Your task to perform on an android device: check out phone information Image 0: 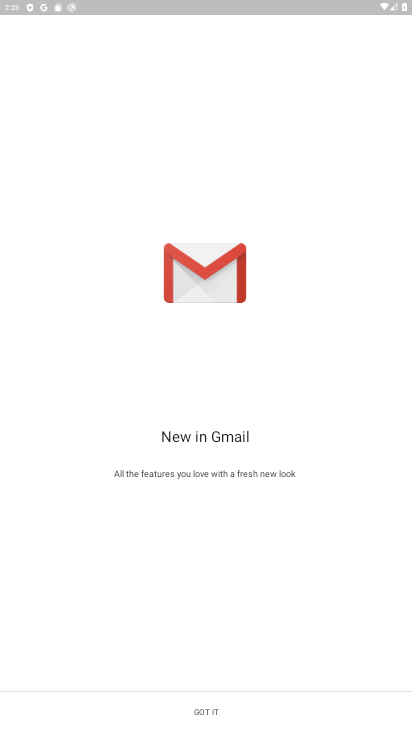
Step 0: press home button
Your task to perform on an android device: check out phone information Image 1: 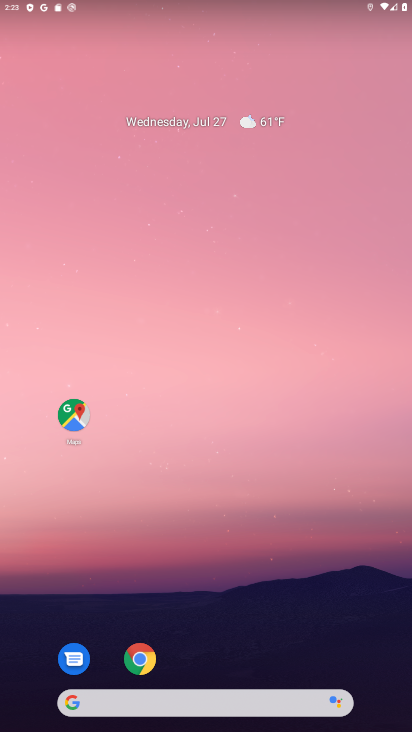
Step 1: drag from (149, 691) to (149, 301)
Your task to perform on an android device: check out phone information Image 2: 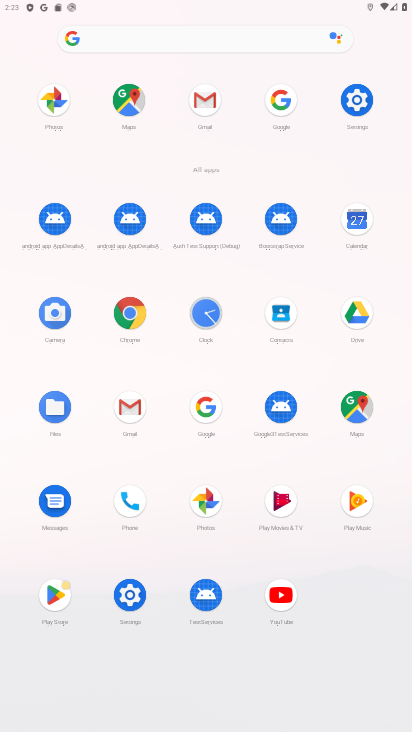
Step 2: click (130, 504)
Your task to perform on an android device: check out phone information Image 3: 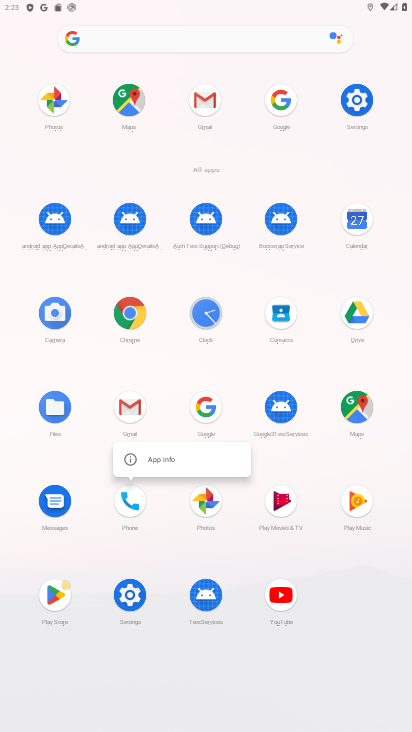
Step 3: click (166, 463)
Your task to perform on an android device: check out phone information Image 4: 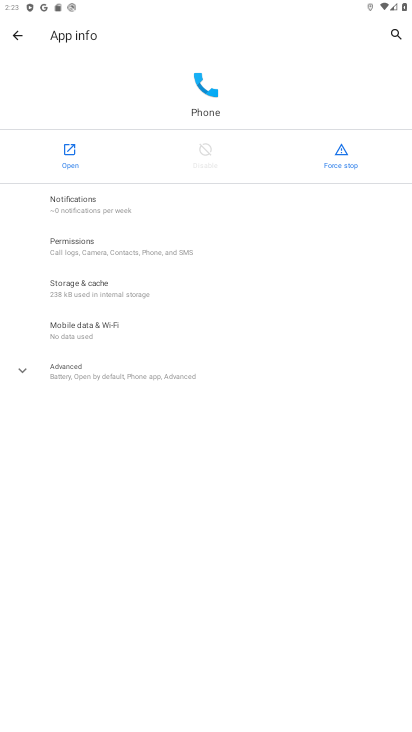
Step 4: click (98, 376)
Your task to perform on an android device: check out phone information Image 5: 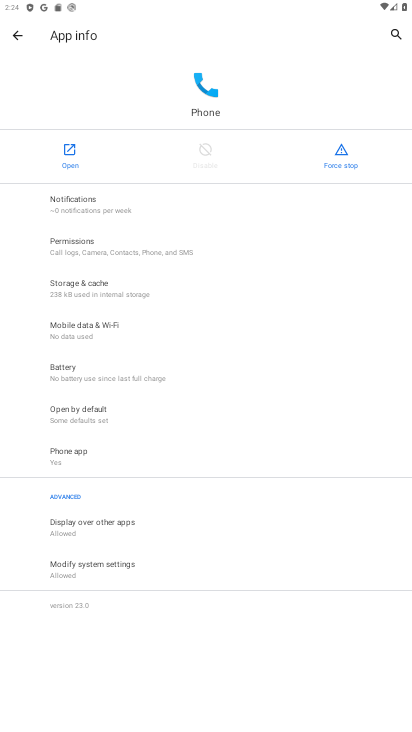
Step 5: task complete